Your task to perform on an android device: Open Google Chrome and open the bookmarks view Image 0: 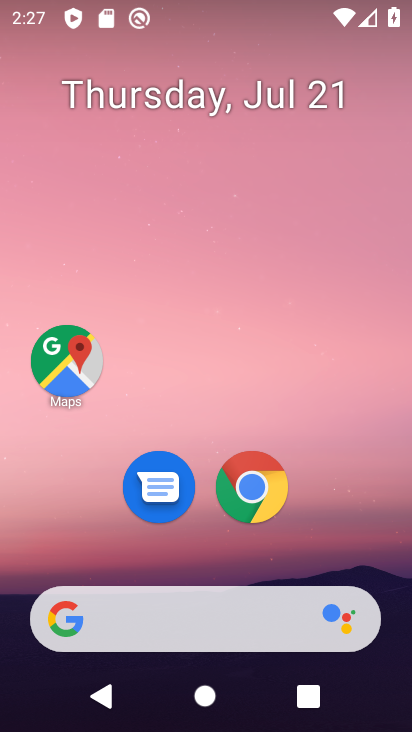
Step 0: click (244, 501)
Your task to perform on an android device: Open Google Chrome and open the bookmarks view Image 1: 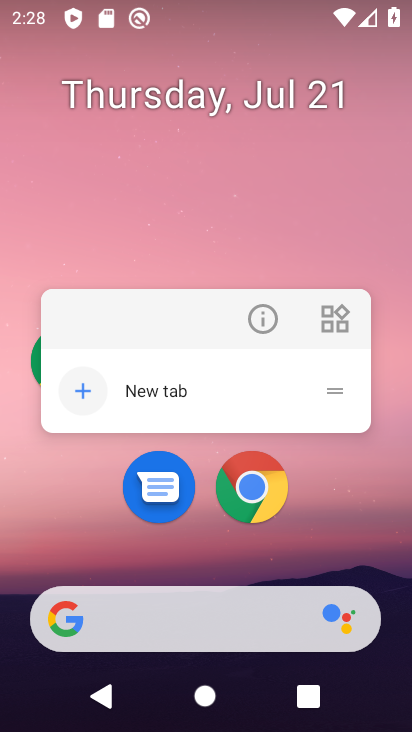
Step 1: click (248, 462)
Your task to perform on an android device: Open Google Chrome and open the bookmarks view Image 2: 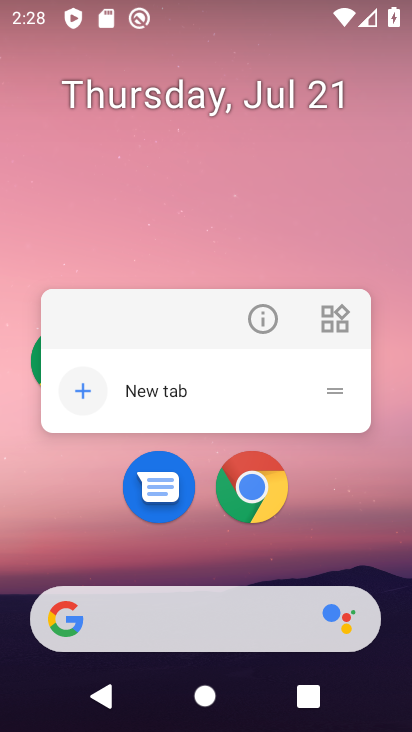
Step 2: click (248, 471)
Your task to perform on an android device: Open Google Chrome and open the bookmarks view Image 3: 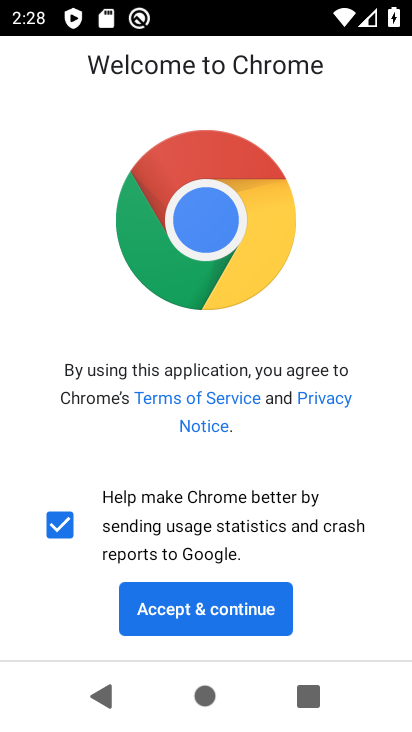
Step 3: click (199, 605)
Your task to perform on an android device: Open Google Chrome and open the bookmarks view Image 4: 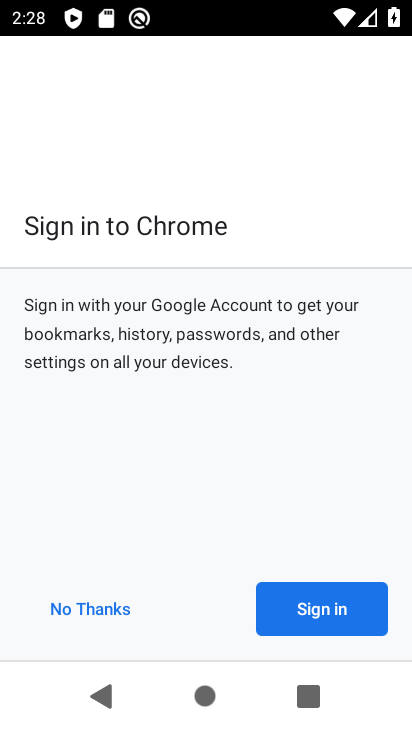
Step 4: click (287, 595)
Your task to perform on an android device: Open Google Chrome and open the bookmarks view Image 5: 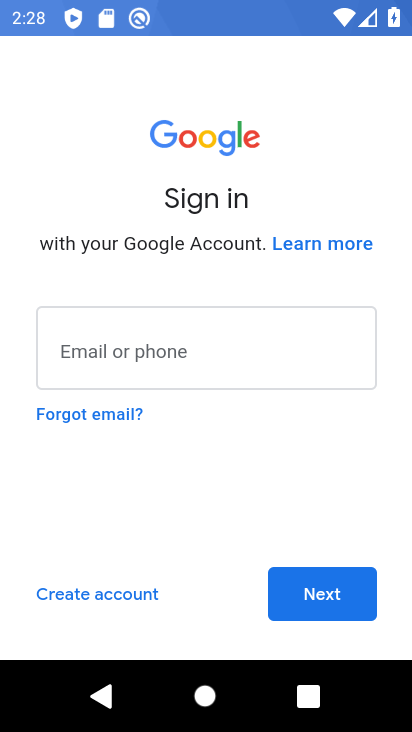
Step 5: click (333, 592)
Your task to perform on an android device: Open Google Chrome and open the bookmarks view Image 6: 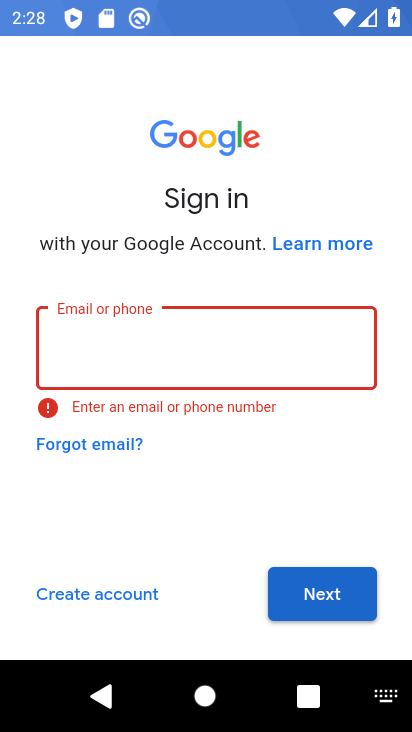
Step 6: task complete